Your task to perform on an android device: Open Yahoo.com Image 0: 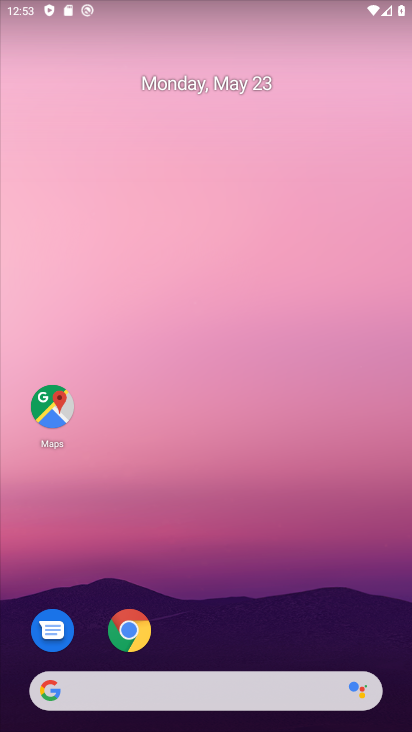
Step 0: drag from (297, 616) to (317, 223)
Your task to perform on an android device: Open Yahoo.com Image 1: 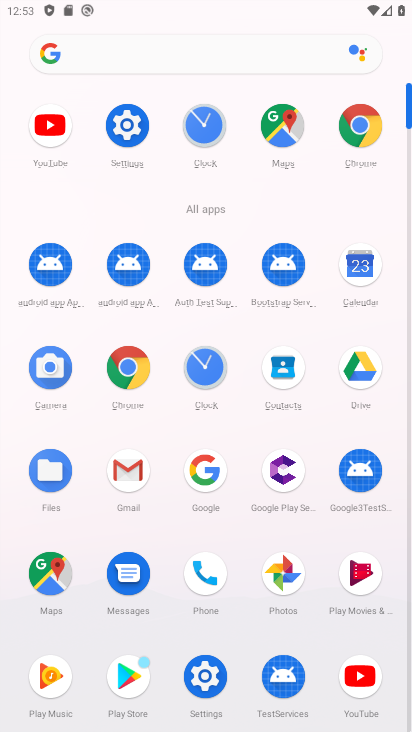
Step 1: click (120, 367)
Your task to perform on an android device: Open Yahoo.com Image 2: 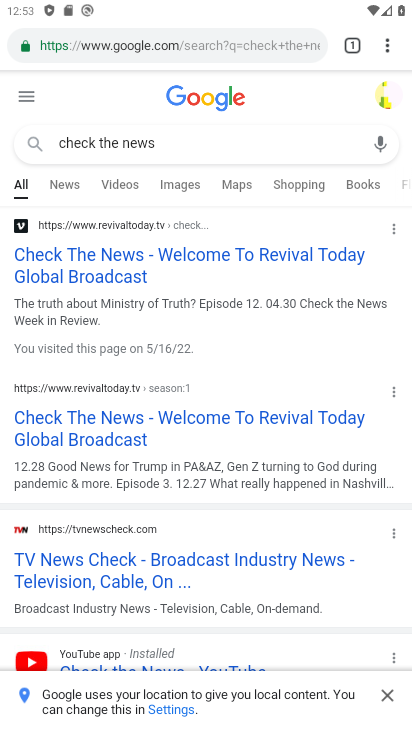
Step 2: click (164, 47)
Your task to perform on an android device: Open Yahoo.com Image 3: 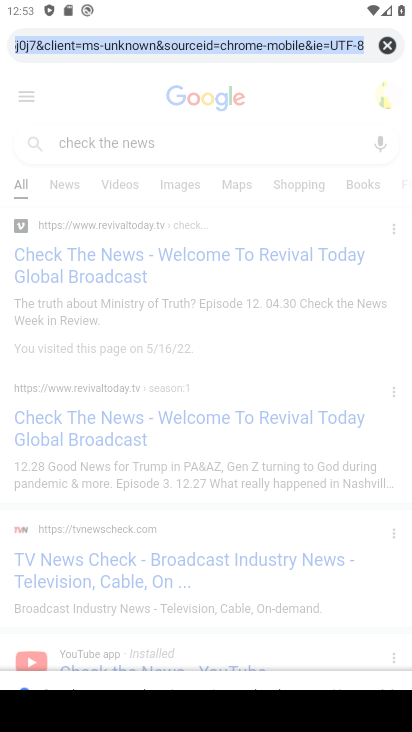
Step 3: click (384, 46)
Your task to perform on an android device: Open Yahoo.com Image 4: 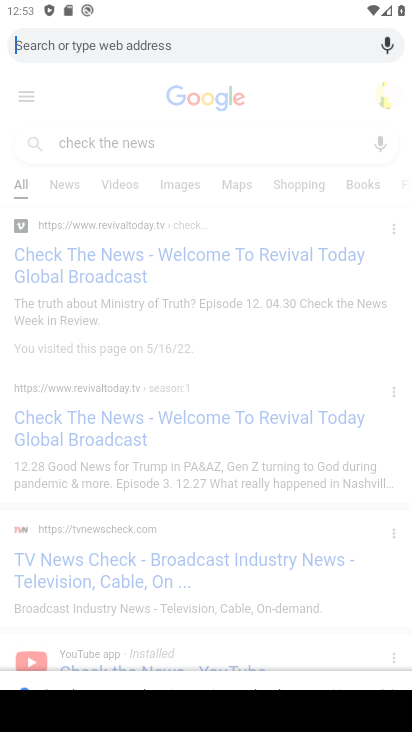
Step 4: type "yahoo.com"
Your task to perform on an android device: Open Yahoo.com Image 5: 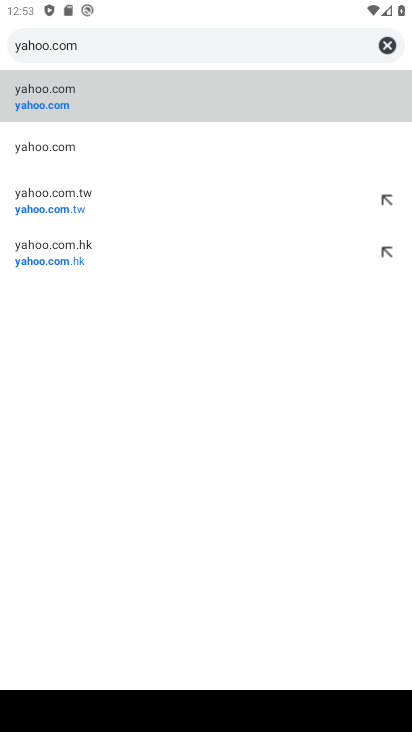
Step 5: click (78, 97)
Your task to perform on an android device: Open Yahoo.com Image 6: 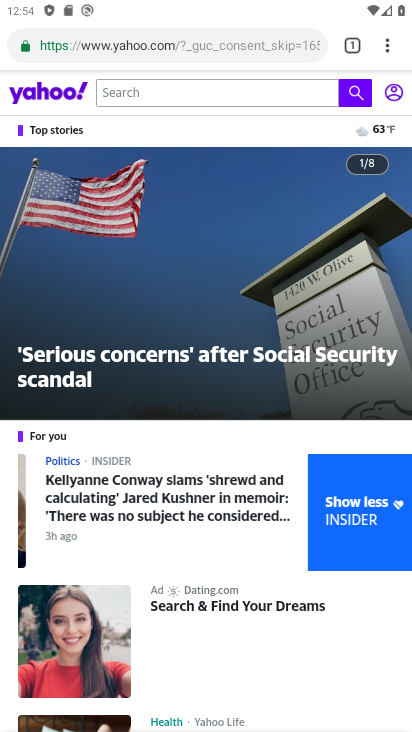
Step 6: task complete